Your task to perform on an android device: turn on wifi Image 0: 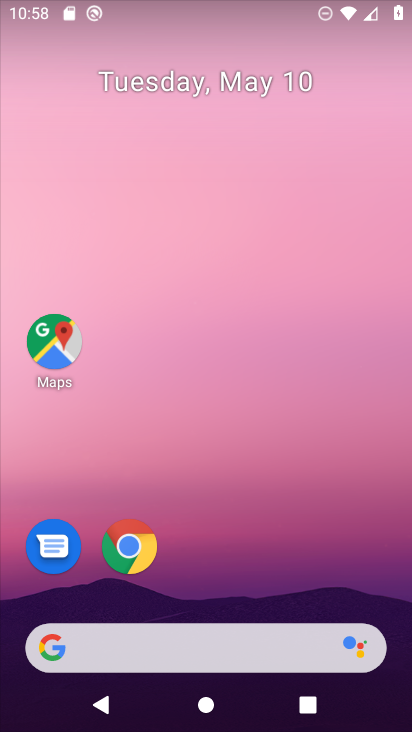
Step 0: drag from (170, 28) to (137, 616)
Your task to perform on an android device: turn on wifi Image 1: 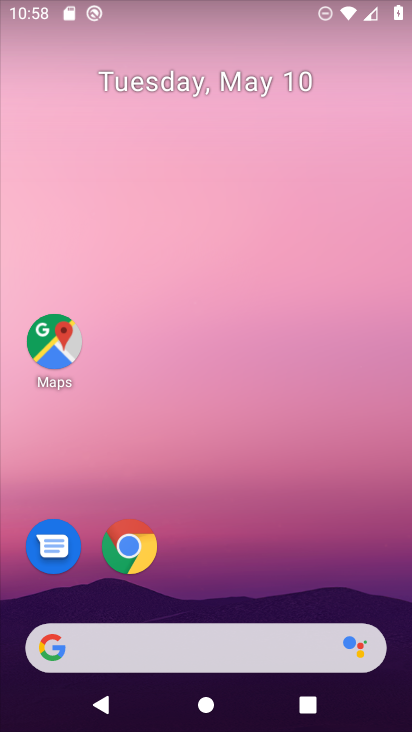
Step 1: task complete